Your task to perform on an android device: check data usage Image 0: 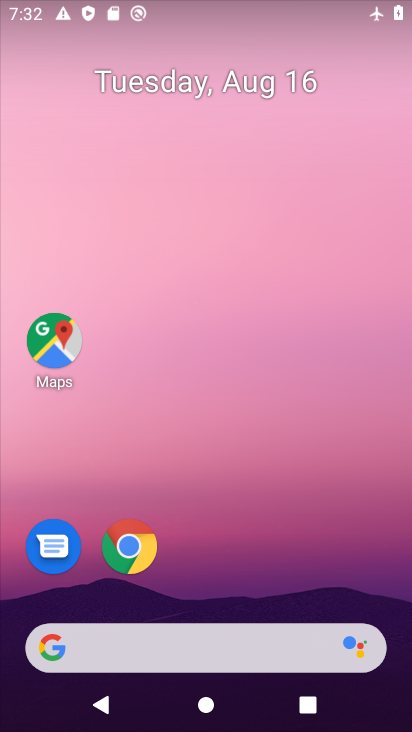
Step 0: drag from (223, 544) to (252, 0)
Your task to perform on an android device: check data usage Image 1: 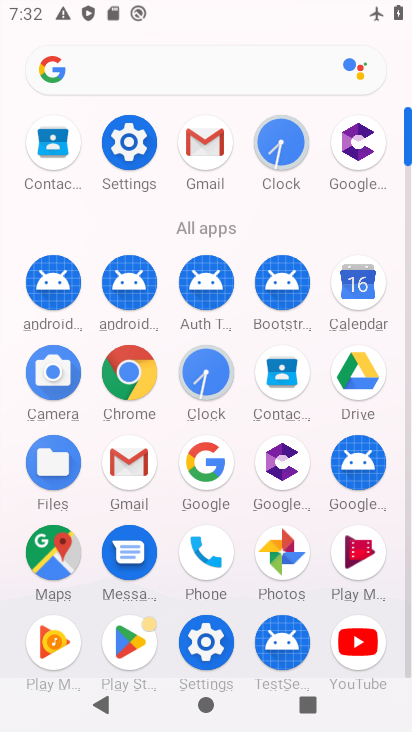
Step 1: click (132, 139)
Your task to perform on an android device: check data usage Image 2: 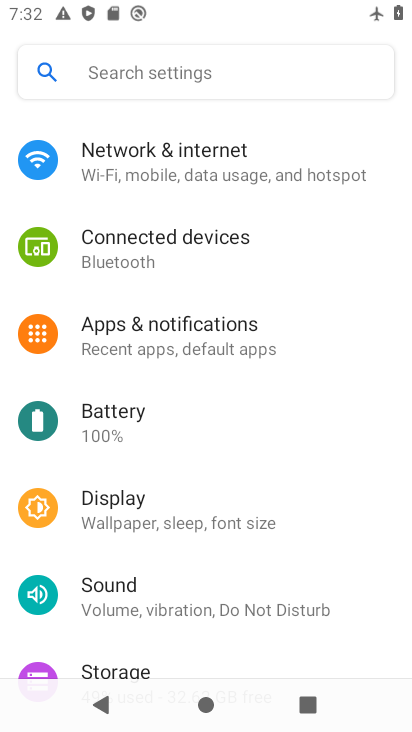
Step 2: click (143, 157)
Your task to perform on an android device: check data usage Image 3: 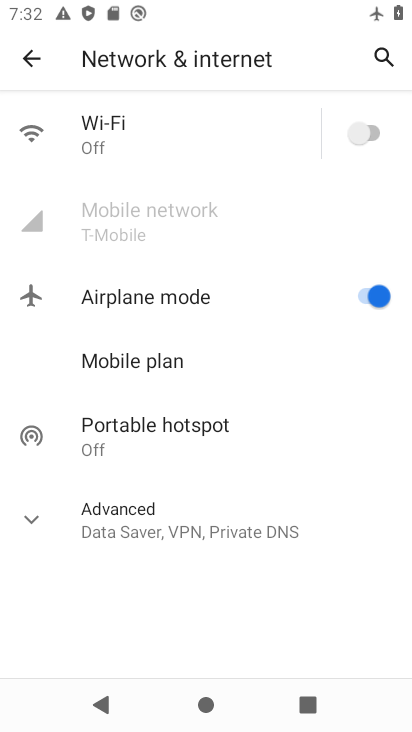
Step 3: click (168, 209)
Your task to perform on an android device: check data usage Image 4: 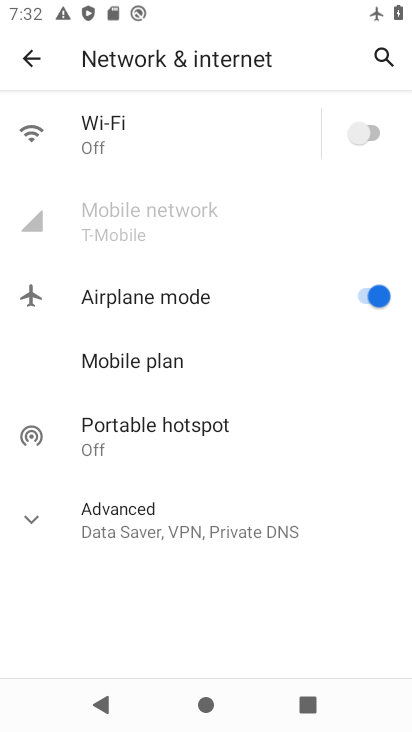
Step 4: click (180, 298)
Your task to perform on an android device: check data usage Image 5: 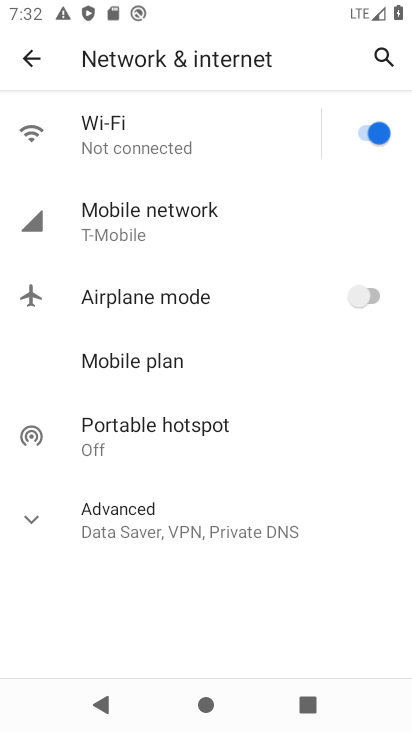
Step 5: click (180, 220)
Your task to perform on an android device: check data usage Image 6: 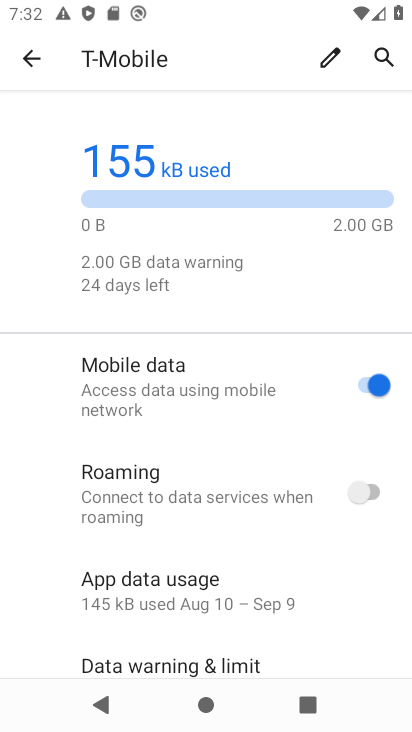
Step 6: task complete